Your task to perform on an android device: Search for sushi restaurants on Maps Image 0: 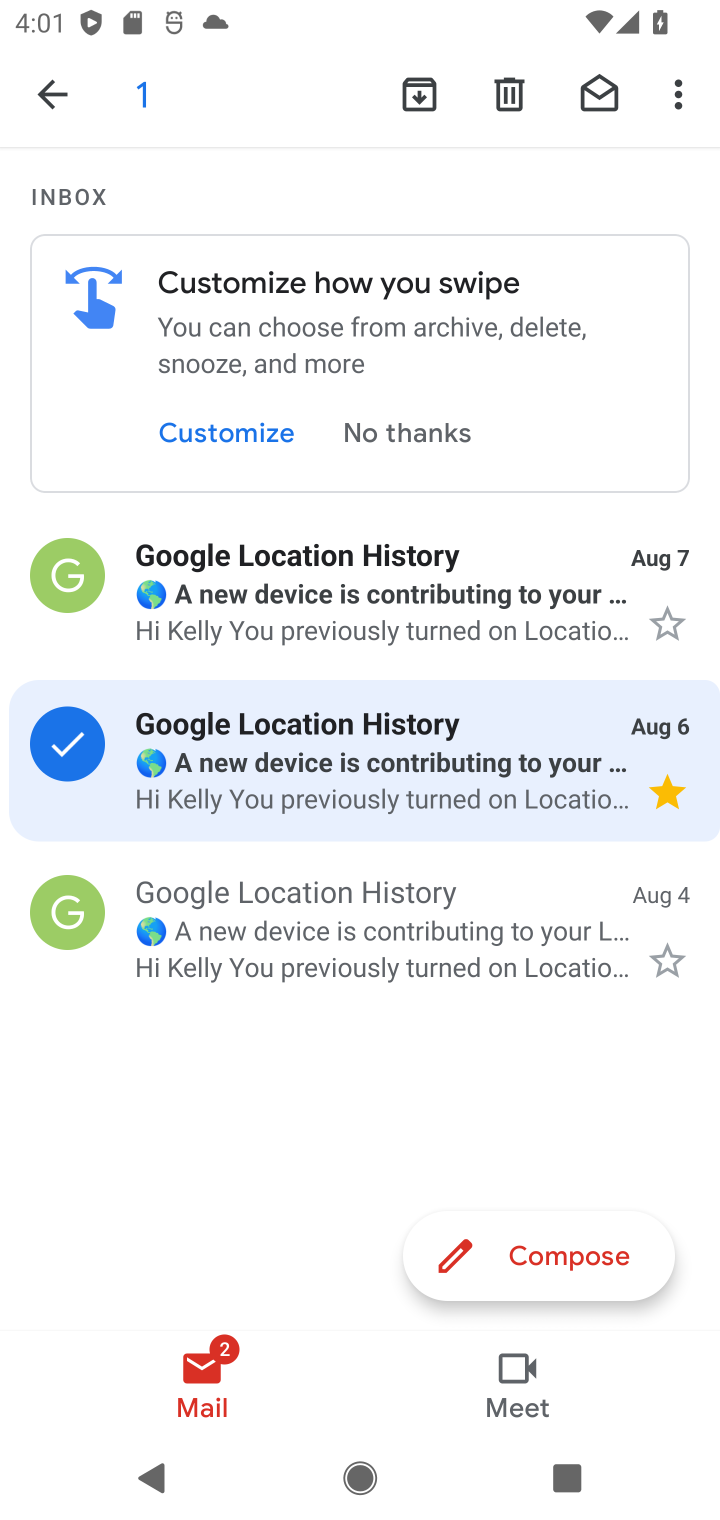
Step 0: press home button
Your task to perform on an android device: Search for sushi restaurants on Maps Image 1: 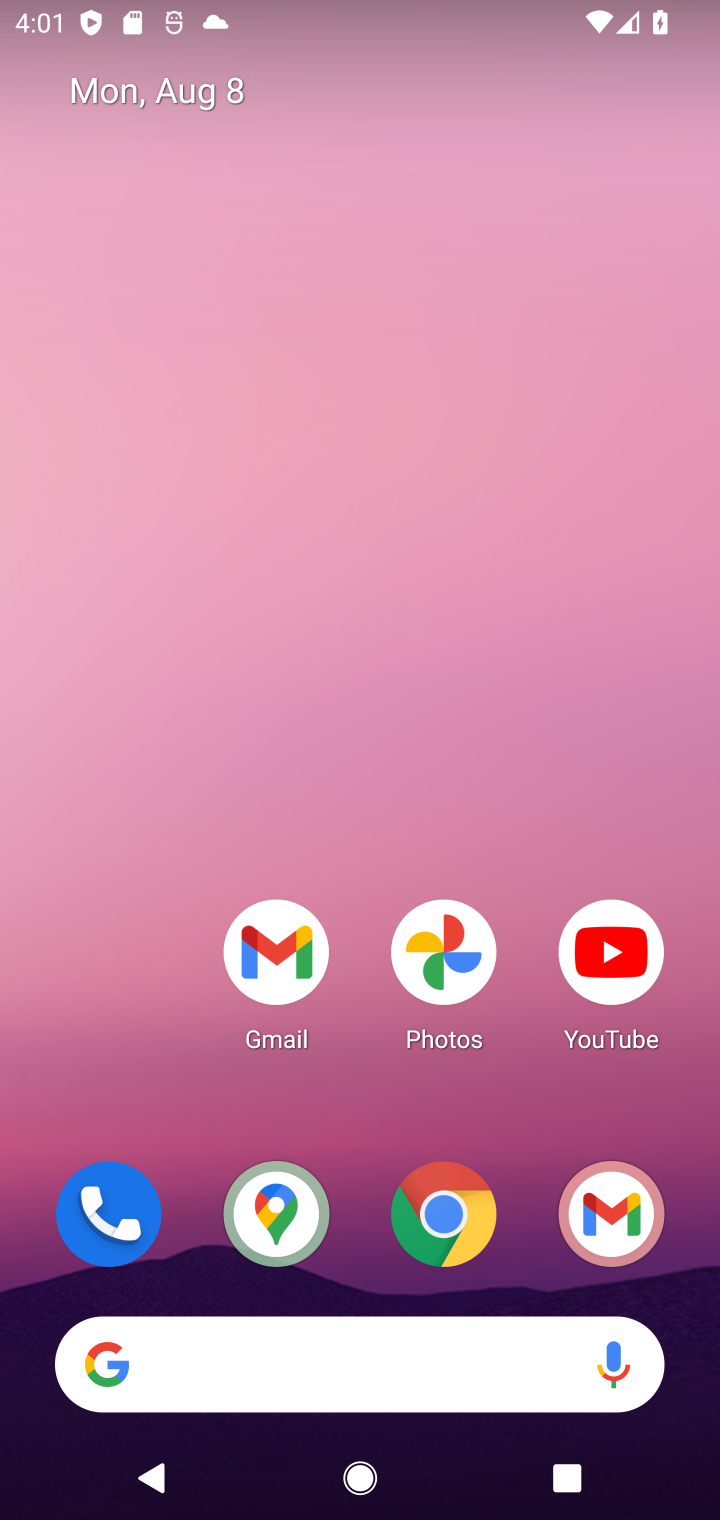
Step 1: drag from (354, 1291) to (347, 189)
Your task to perform on an android device: Search for sushi restaurants on Maps Image 2: 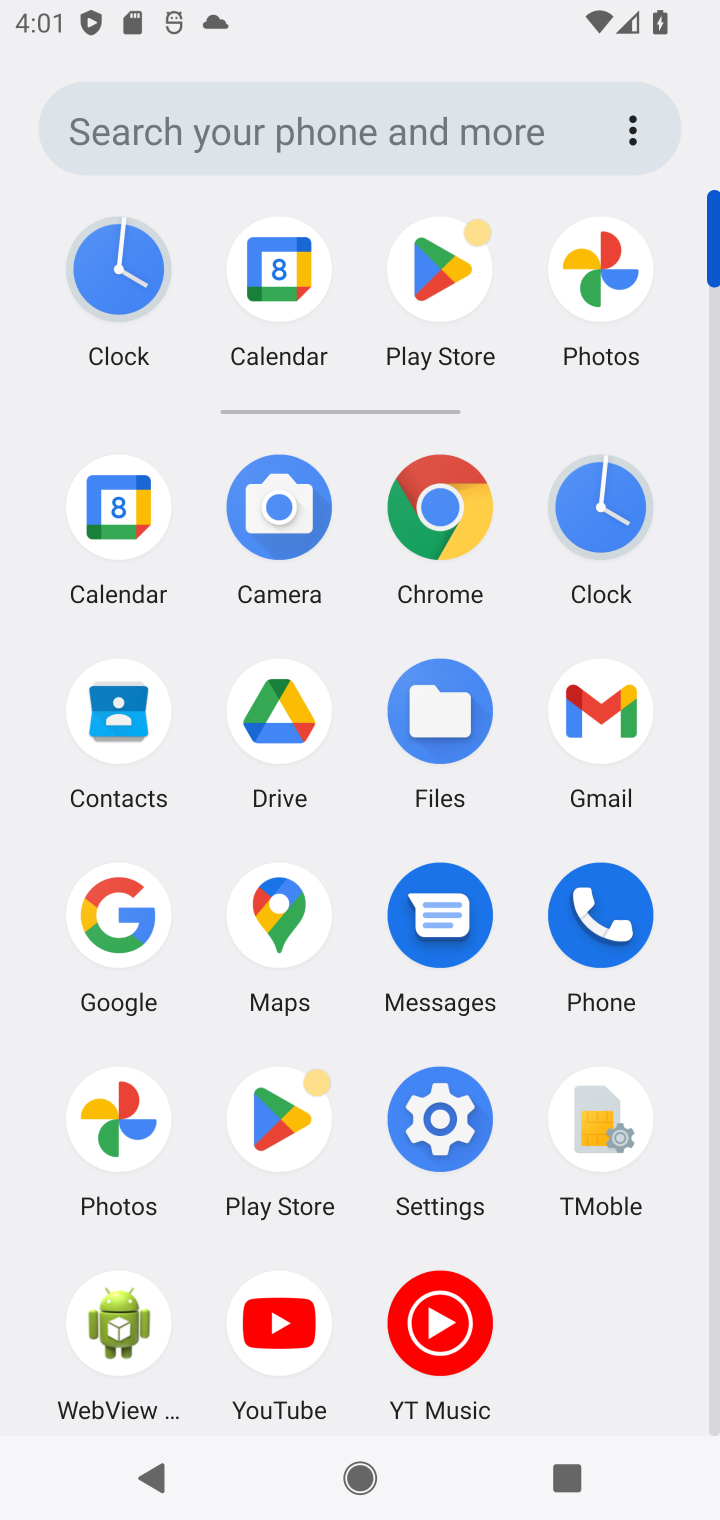
Step 2: click (290, 912)
Your task to perform on an android device: Search for sushi restaurants on Maps Image 3: 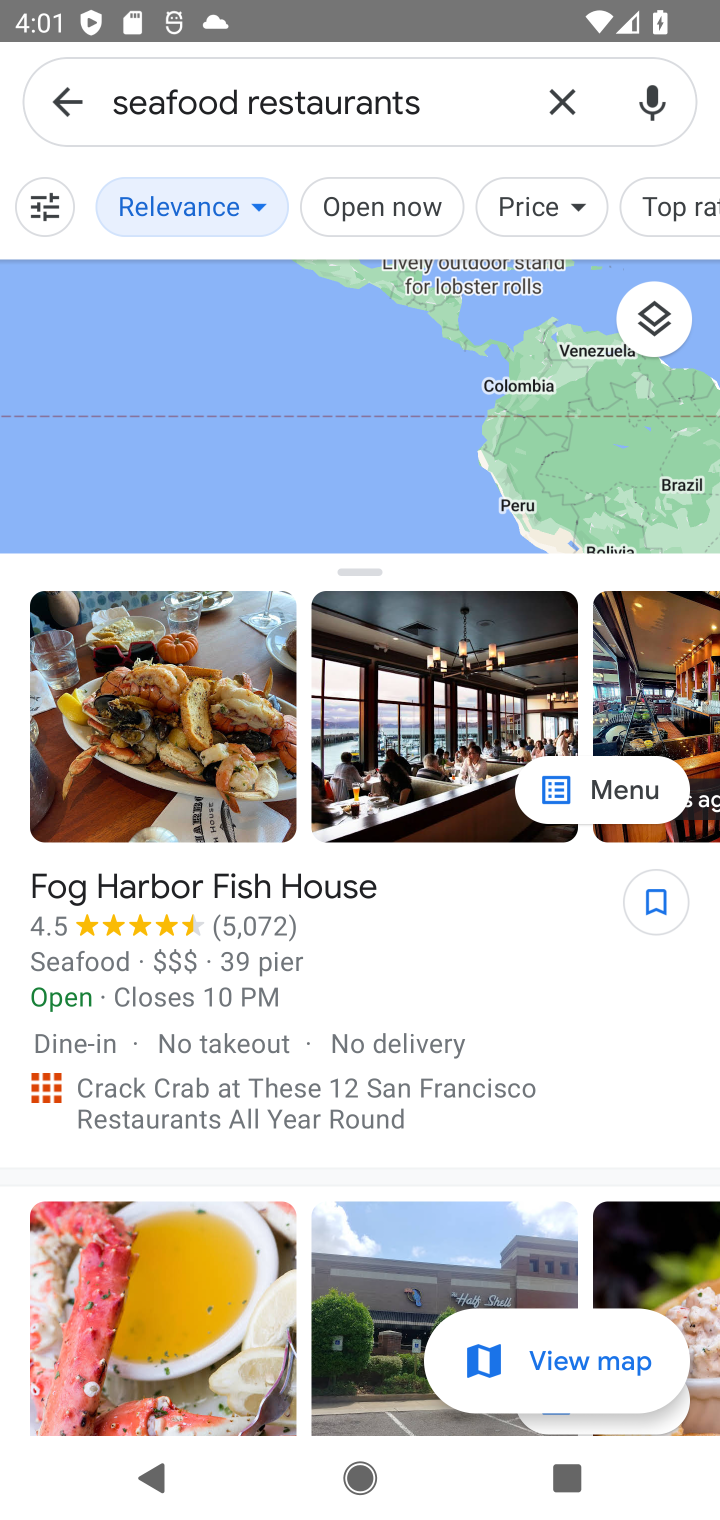
Step 3: click (557, 99)
Your task to perform on an android device: Search for sushi restaurants on Maps Image 4: 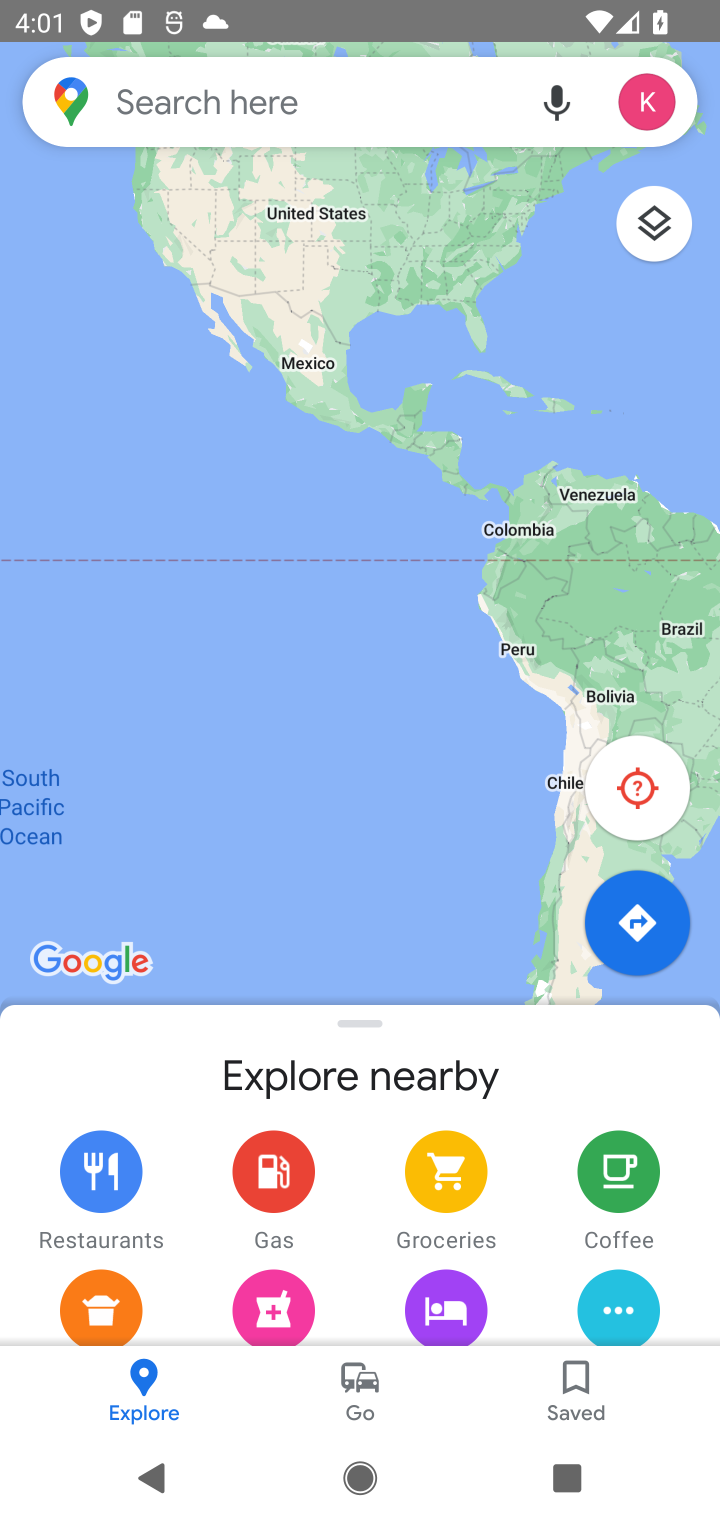
Step 4: click (398, 101)
Your task to perform on an android device: Search for sushi restaurants on Maps Image 5: 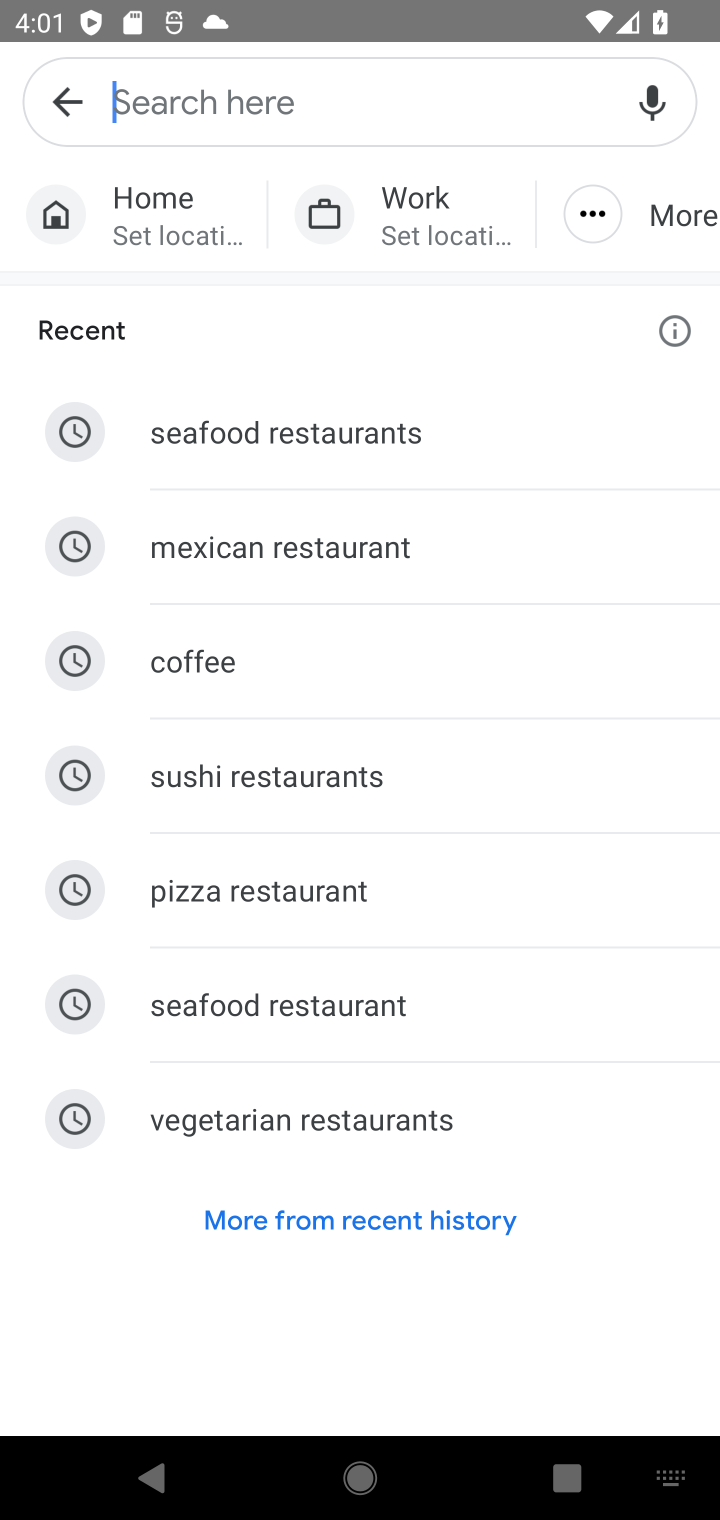
Step 5: type "Sushi restaurants"
Your task to perform on an android device: Search for sushi restaurants on Maps Image 6: 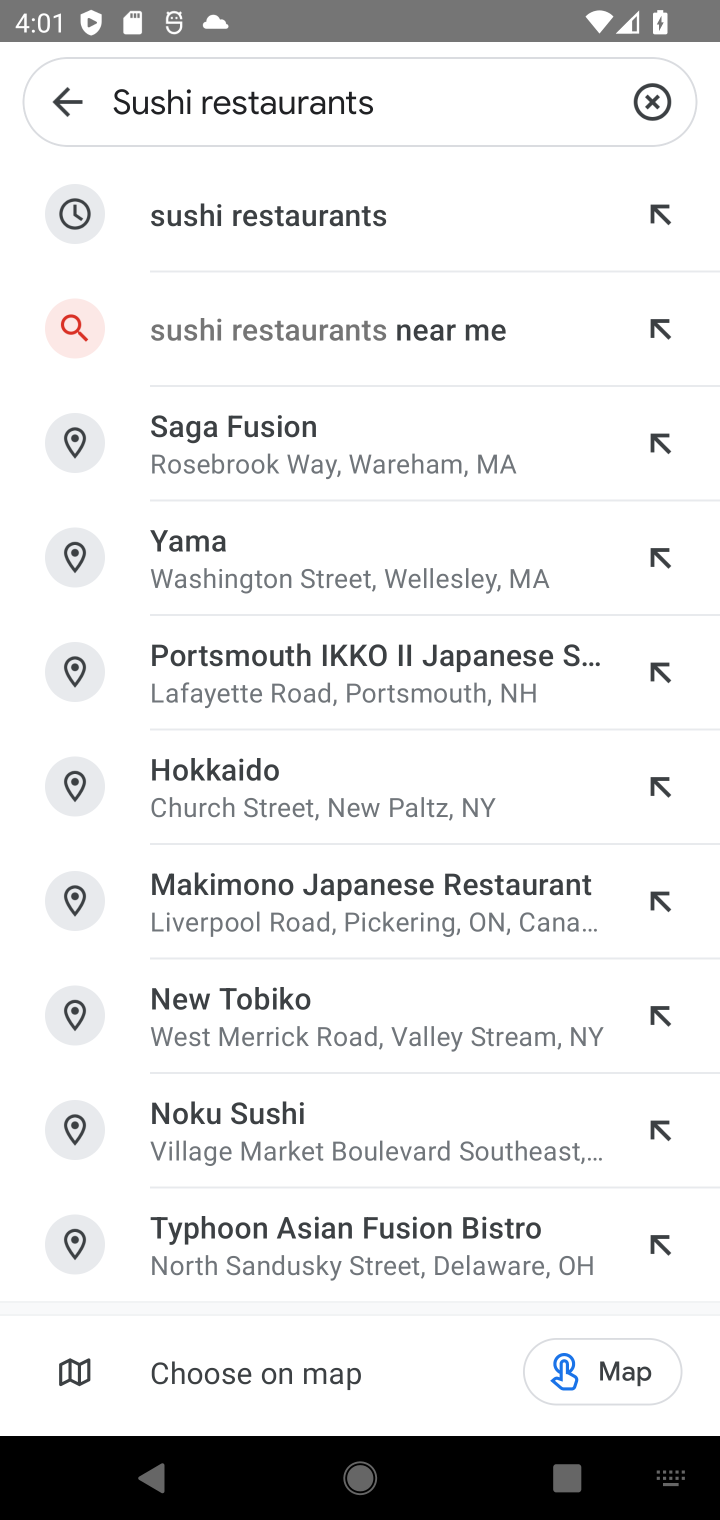
Step 6: click (340, 214)
Your task to perform on an android device: Search for sushi restaurants on Maps Image 7: 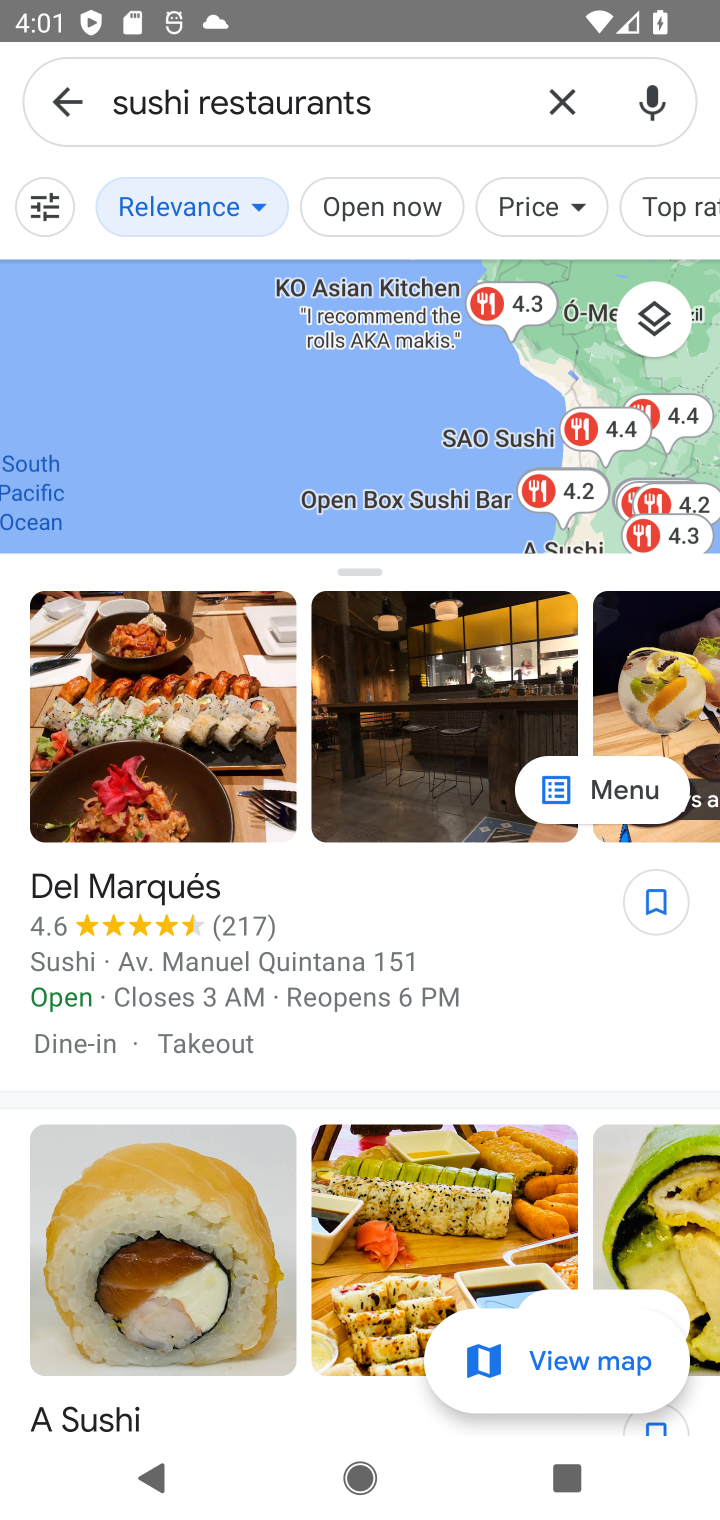
Step 7: task complete